Your task to perform on an android device: Go to internet settings Image 0: 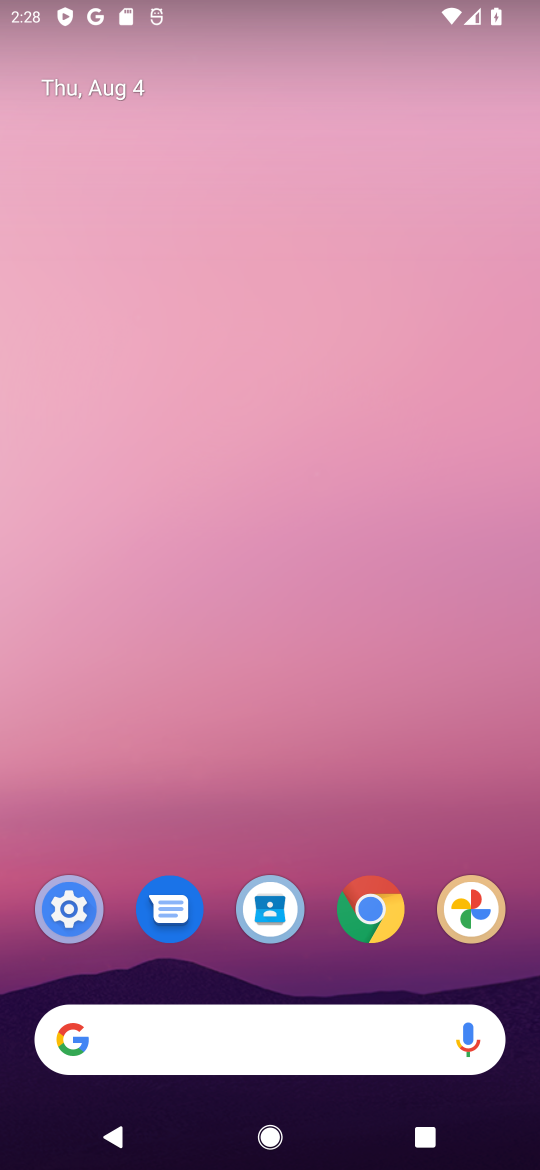
Step 0: click (67, 909)
Your task to perform on an android device: Go to internet settings Image 1: 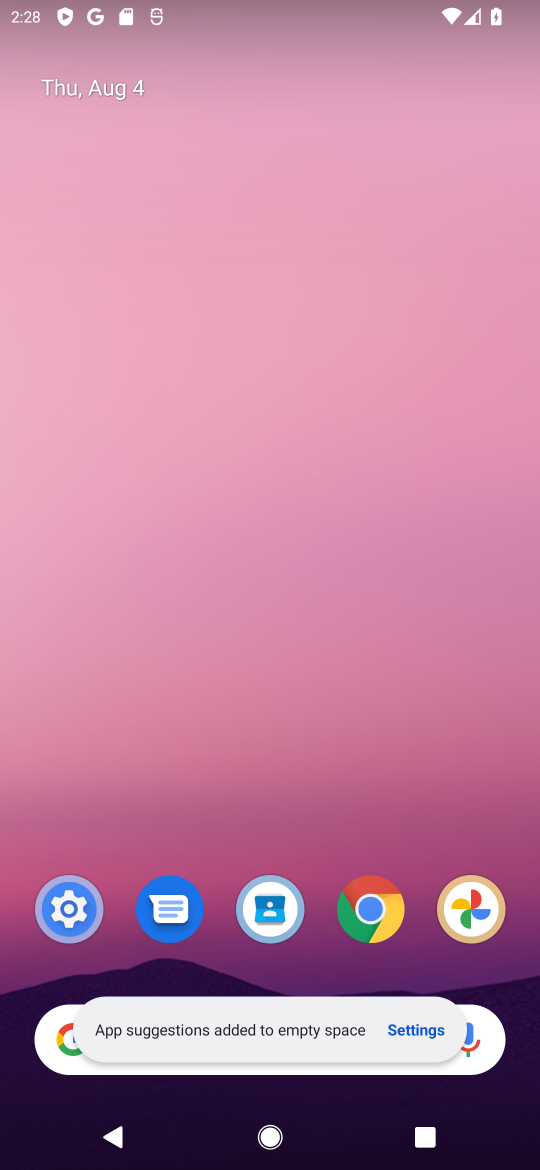
Step 1: click (67, 907)
Your task to perform on an android device: Go to internet settings Image 2: 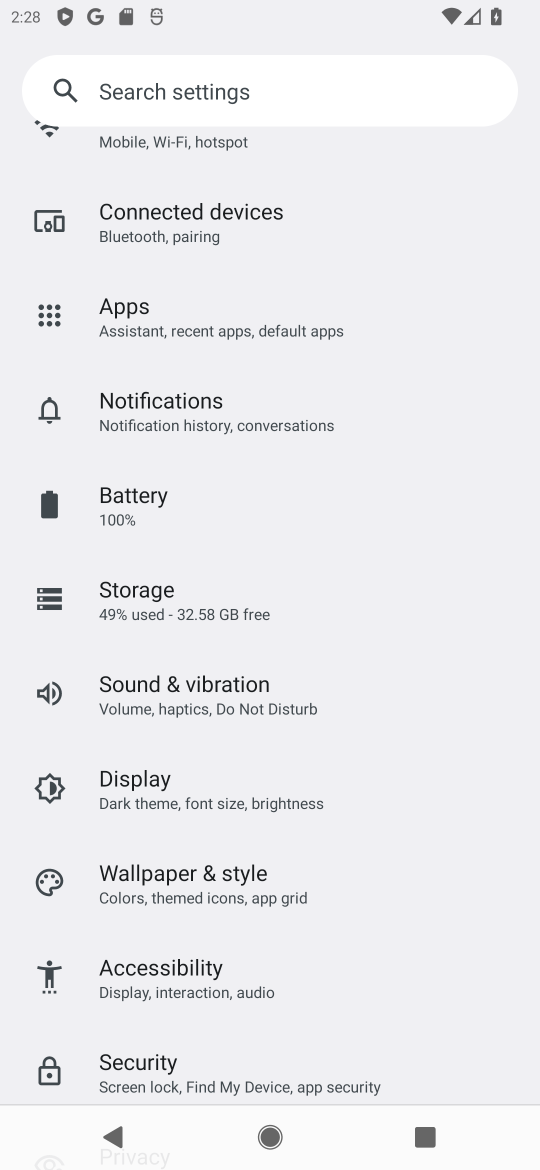
Step 2: click (67, 907)
Your task to perform on an android device: Go to internet settings Image 3: 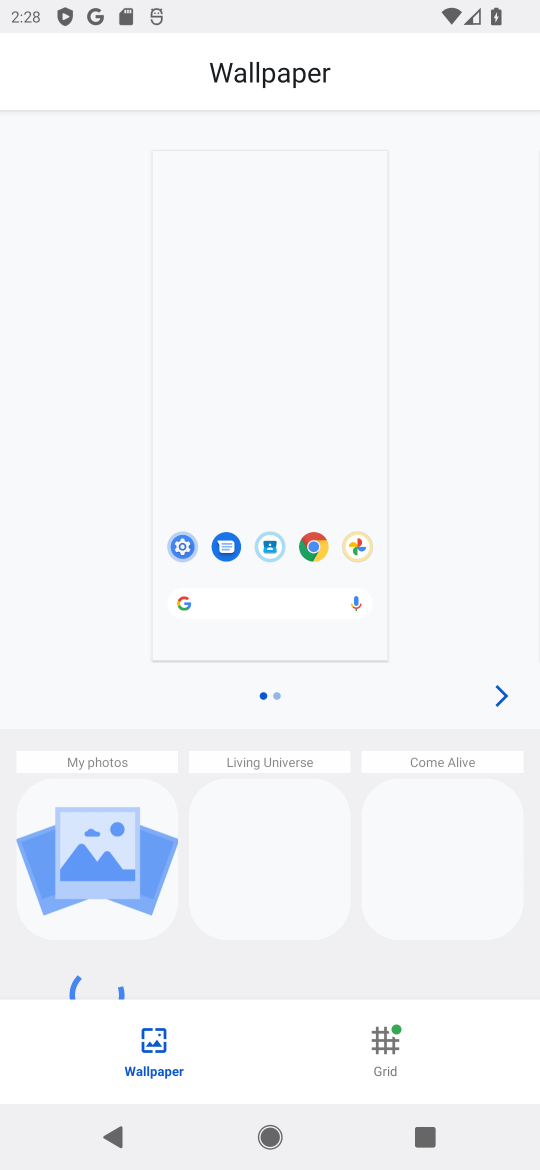
Step 3: press back button
Your task to perform on an android device: Go to internet settings Image 4: 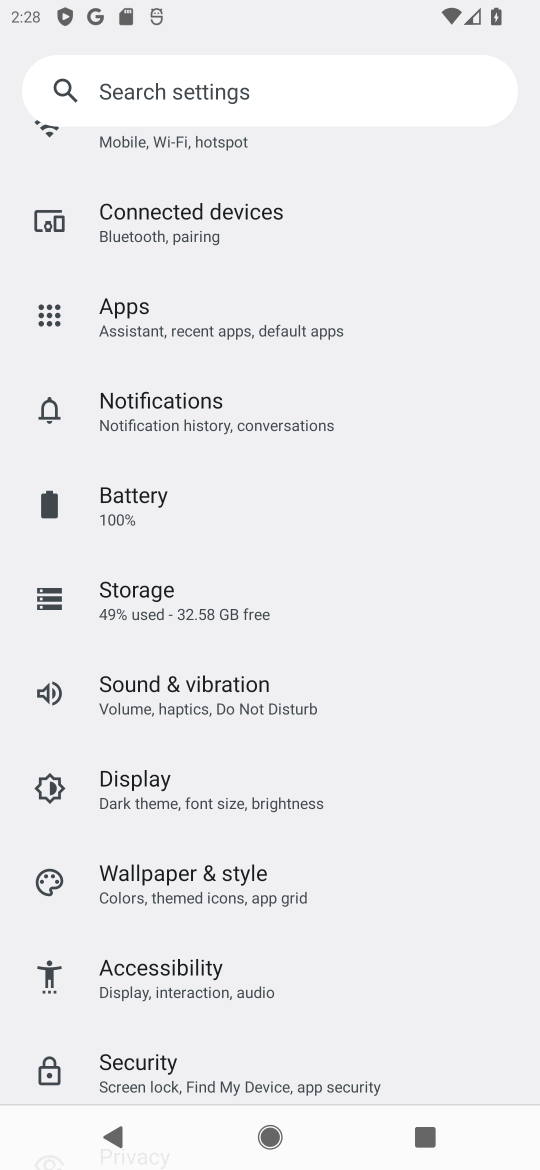
Step 4: drag from (307, 230) to (298, 773)
Your task to perform on an android device: Go to internet settings Image 5: 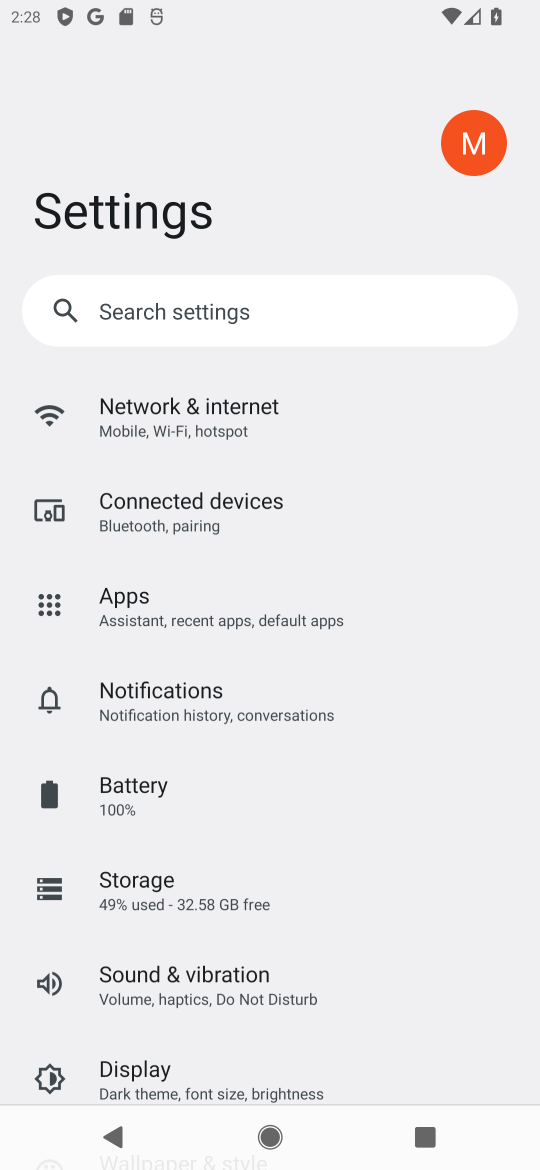
Step 5: click (223, 421)
Your task to perform on an android device: Go to internet settings Image 6: 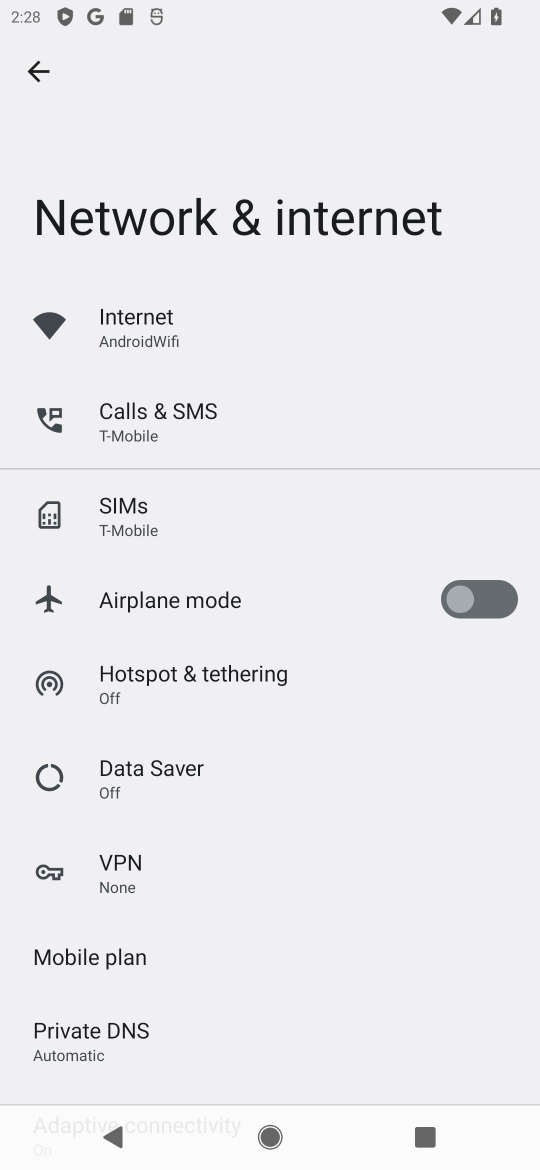
Step 6: task complete